Your task to perform on an android device: Search for seafood restaurants on Google Maps Image 0: 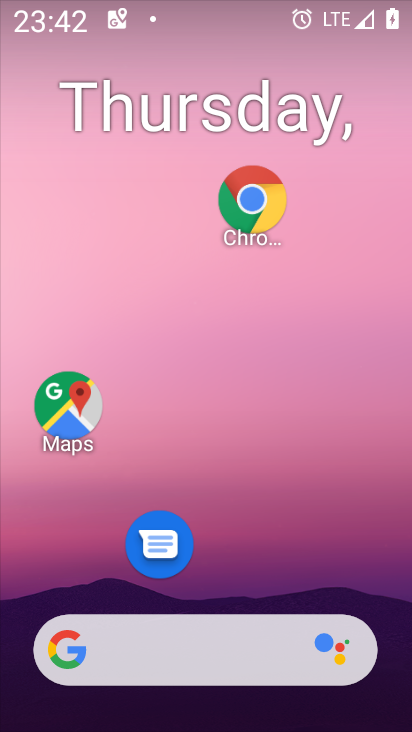
Step 0: click (55, 413)
Your task to perform on an android device: Search for seafood restaurants on Google Maps Image 1: 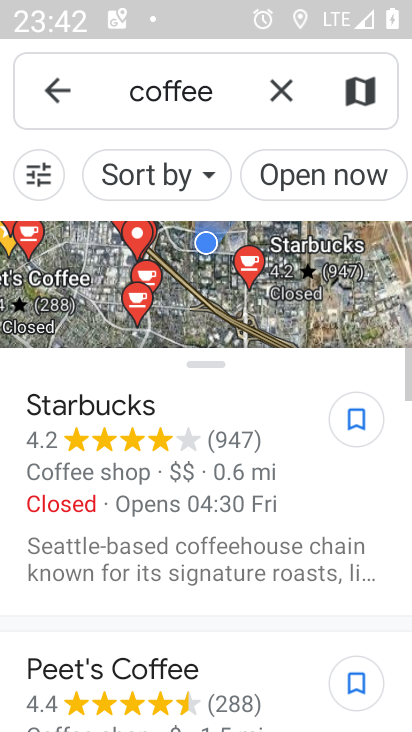
Step 1: click (304, 88)
Your task to perform on an android device: Search for seafood restaurants on Google Maps Image 2: 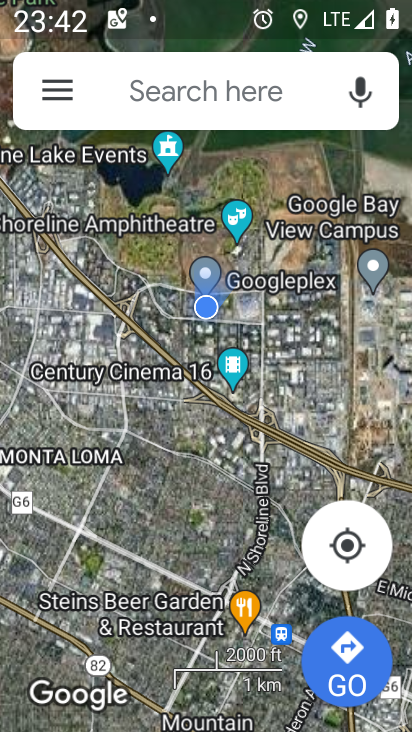
Step 2: click (218, 98)
Your task to perform on an android device: Search for seafood restaurants on Google Maps Image 3: 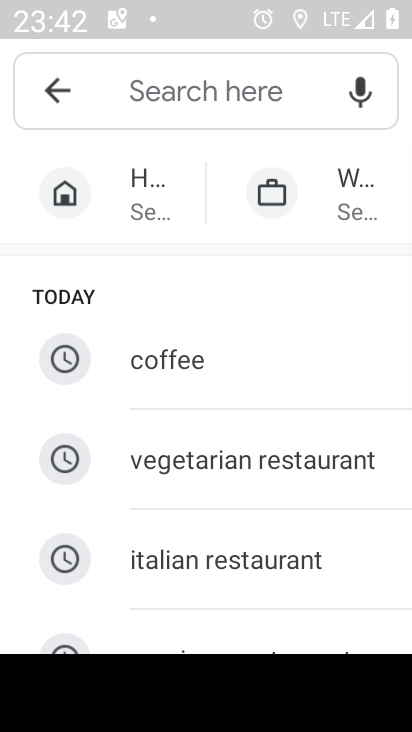
Step 3: drag from (110, 551) to (174, 168)
Your task to perform on an android device: Search for seafood restaurants on Google Maps Image 4: 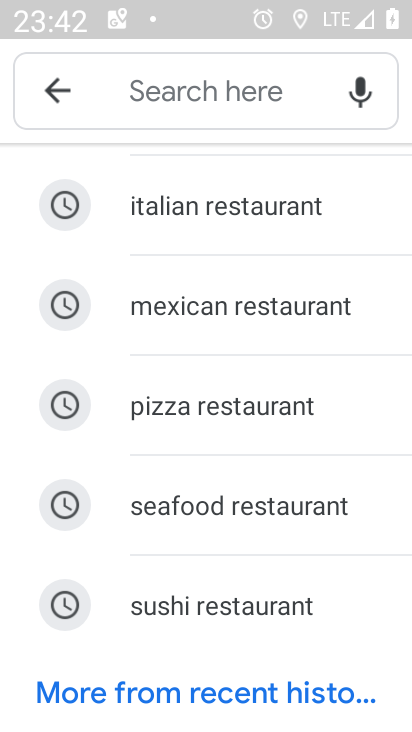
Step 4: click (156, 93)
Your task to perform on an android device: Search for seafood restaurants on Google Maps Image 5: 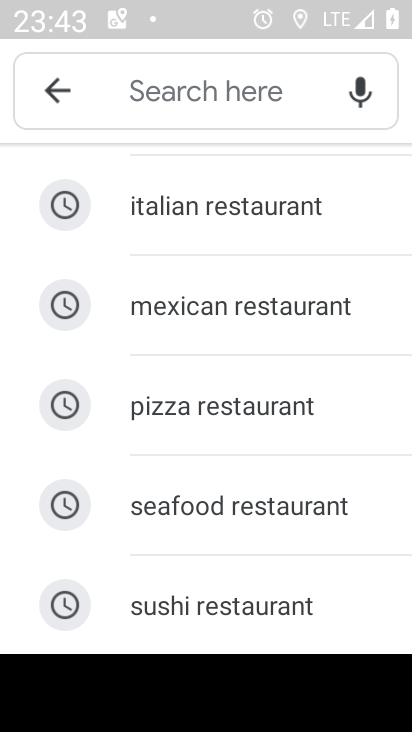
Step 5: click (209, 541)
Your task to perform on an android device: Search for seafood restaurants on Google Maps Image 6: 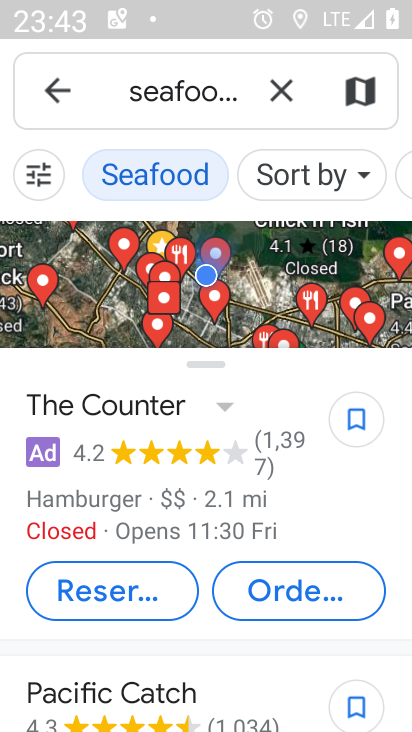
Step 6: task complete